Your task to perform on an android device: What's the weather going to be this weekend? Image 0: 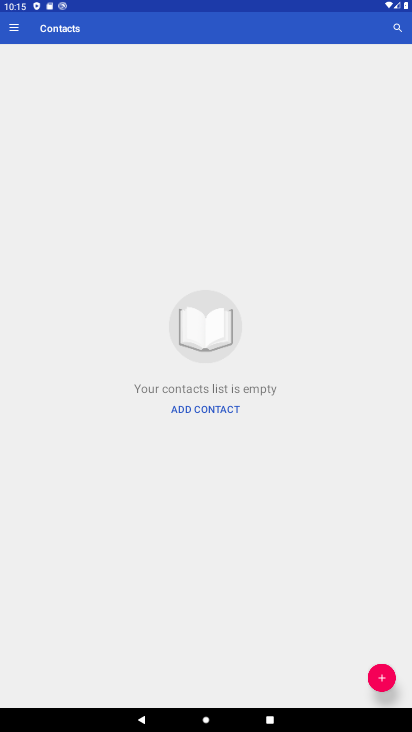
Step 0: press home button
Your task to perform on an android device: What's the weather going to be this weekend? Image 1: 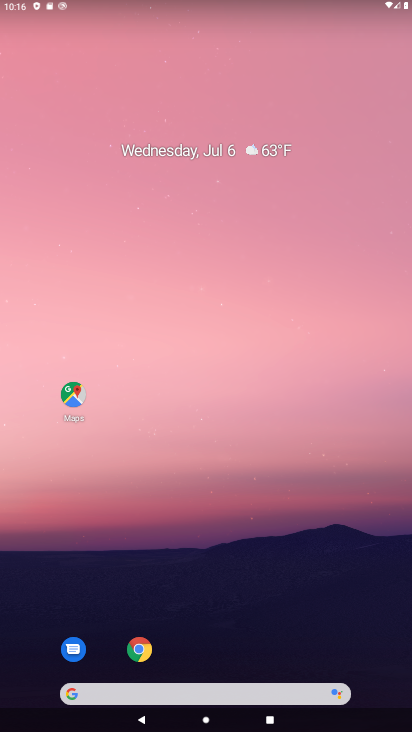
Step 1: click (72, 693)
Your task to perform on an android device: What's the weather going to be this weekend? Image 2: 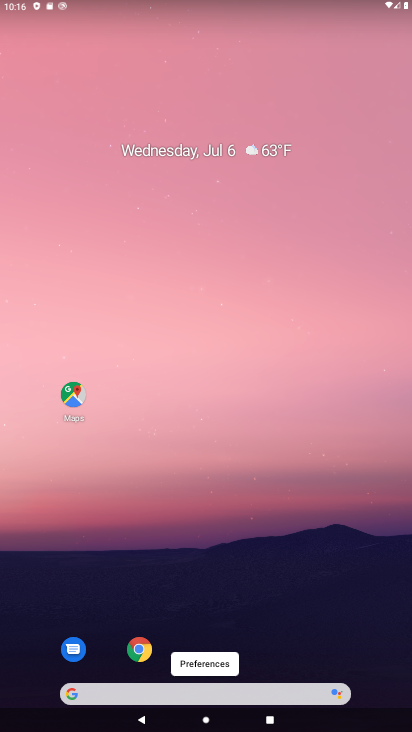
Step 2: click (73, 699)
Your task to perform on an android device: What's the weather going to be this weekend? Image 3: 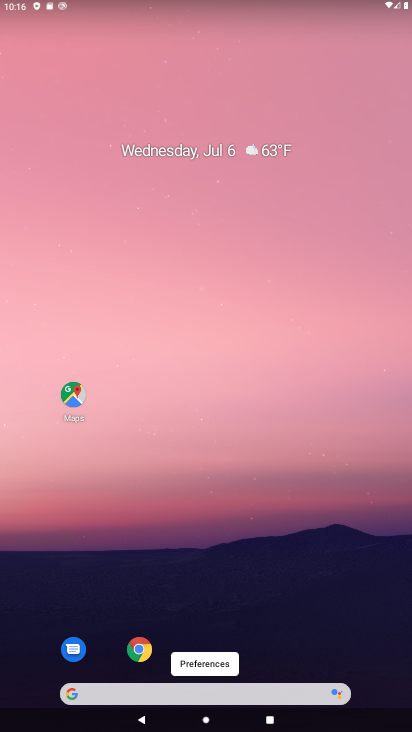
Step 3: click (72, 689)
Your task to perform on an android device: What's the weather going to be this weekend? Image 4: 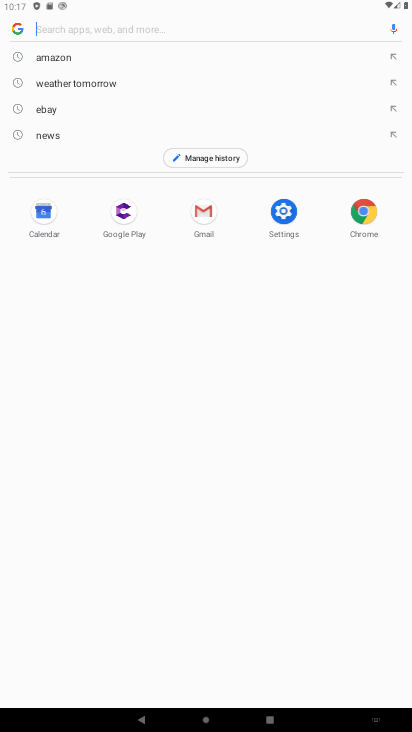
Step 4: type "weather going to be this weekend?"
Your task to perform on an android device: What's the weather going to be this weekend? Image 5: 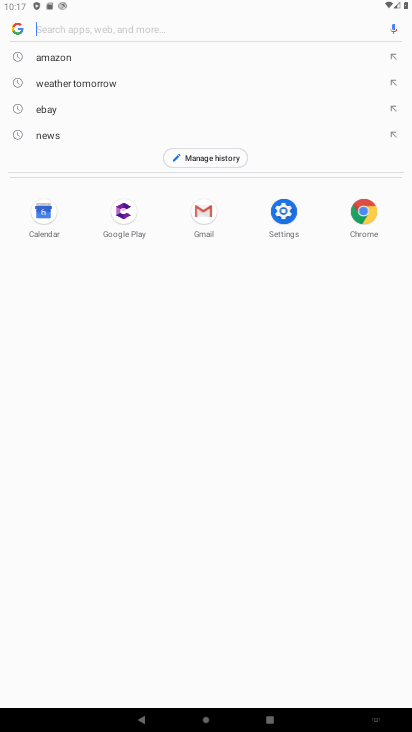
Step 5: click (149, 28)
Your task to perform on an android device: What's the weather going to be this weekend? Image 6: 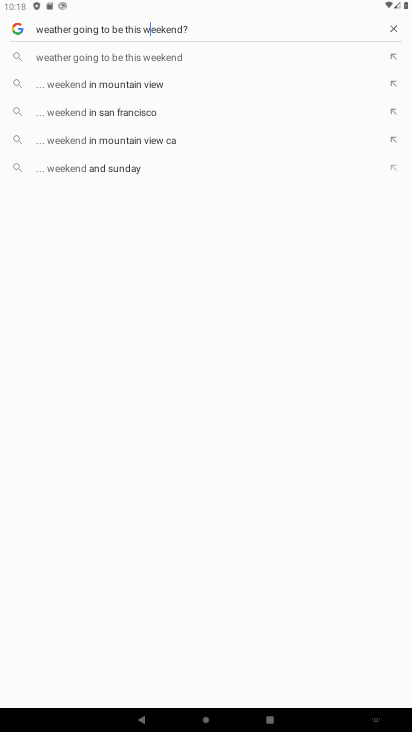
Step 6: click (135, 58)
Your task to perform on an android device: What's the weather going to be this weekend? Image 7: 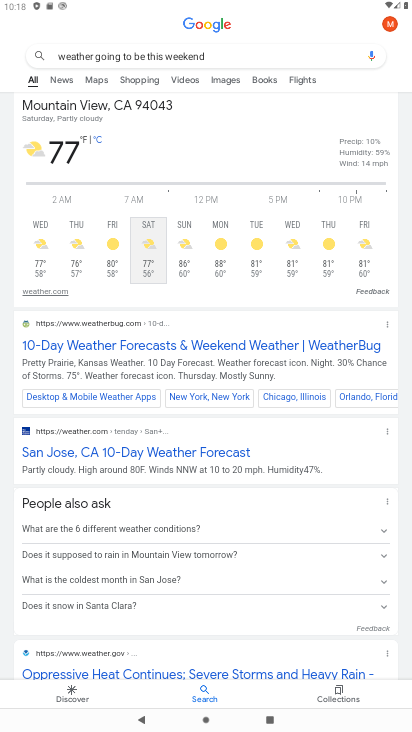
Step 7: task complete